Your task to perform on an android device: open app "Indeed Job Search" Image 0: 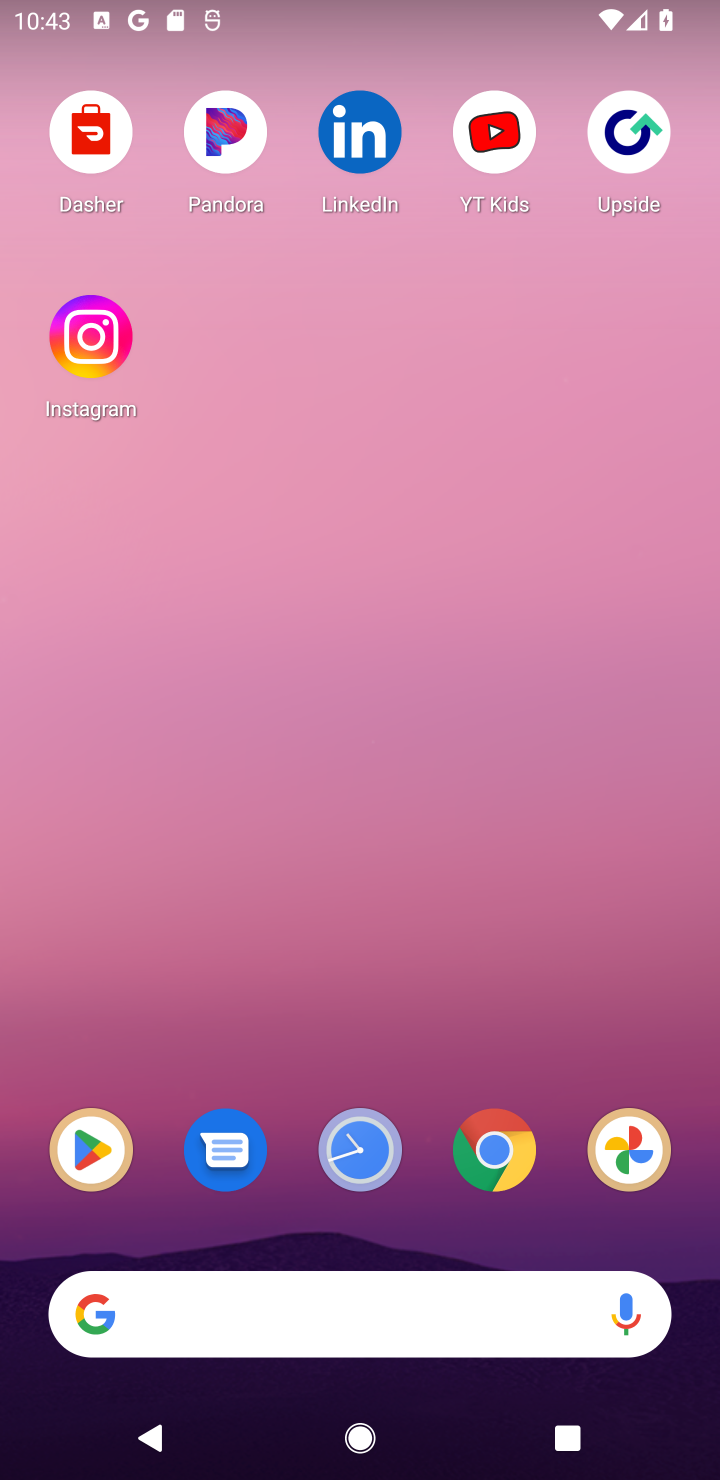
Step 0: click (92, 1175)
Your task to perform on an android device: open app "Indeed Job Search" Image 1: 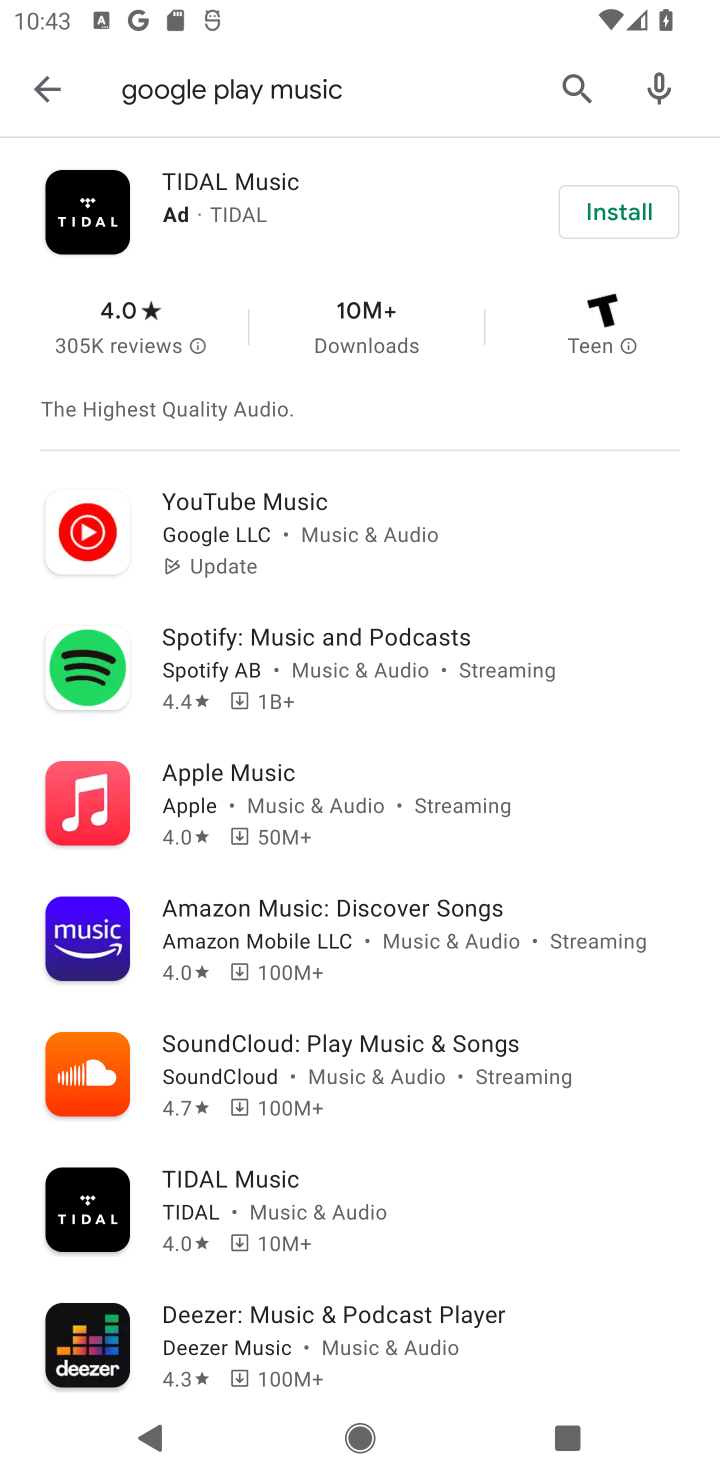
Step 1: click (574, 77)
Your task to perform on an android device: open app "Indeed Job Search" Image 2: 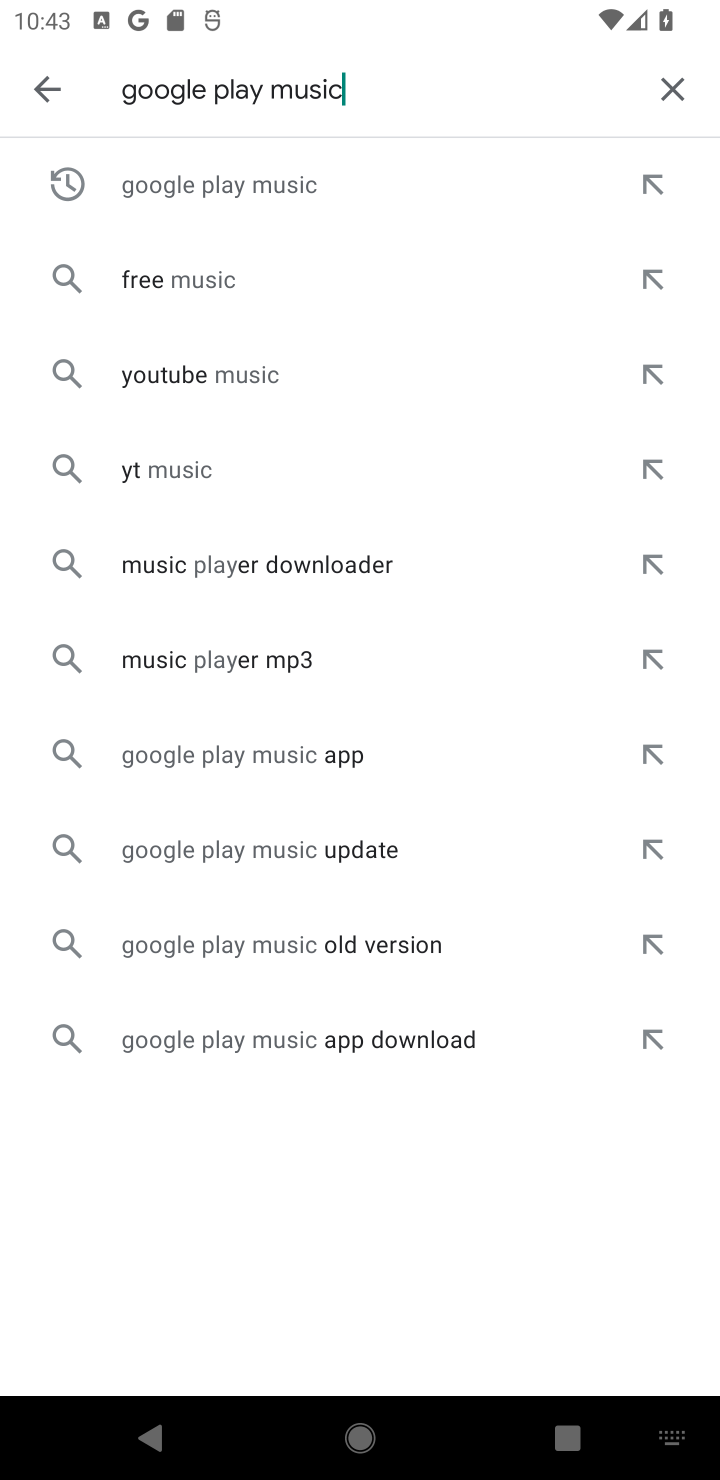
Step 2: click (667, 78)
Your task to perform on an android device: open app "Indeed Job Search" Image 3: 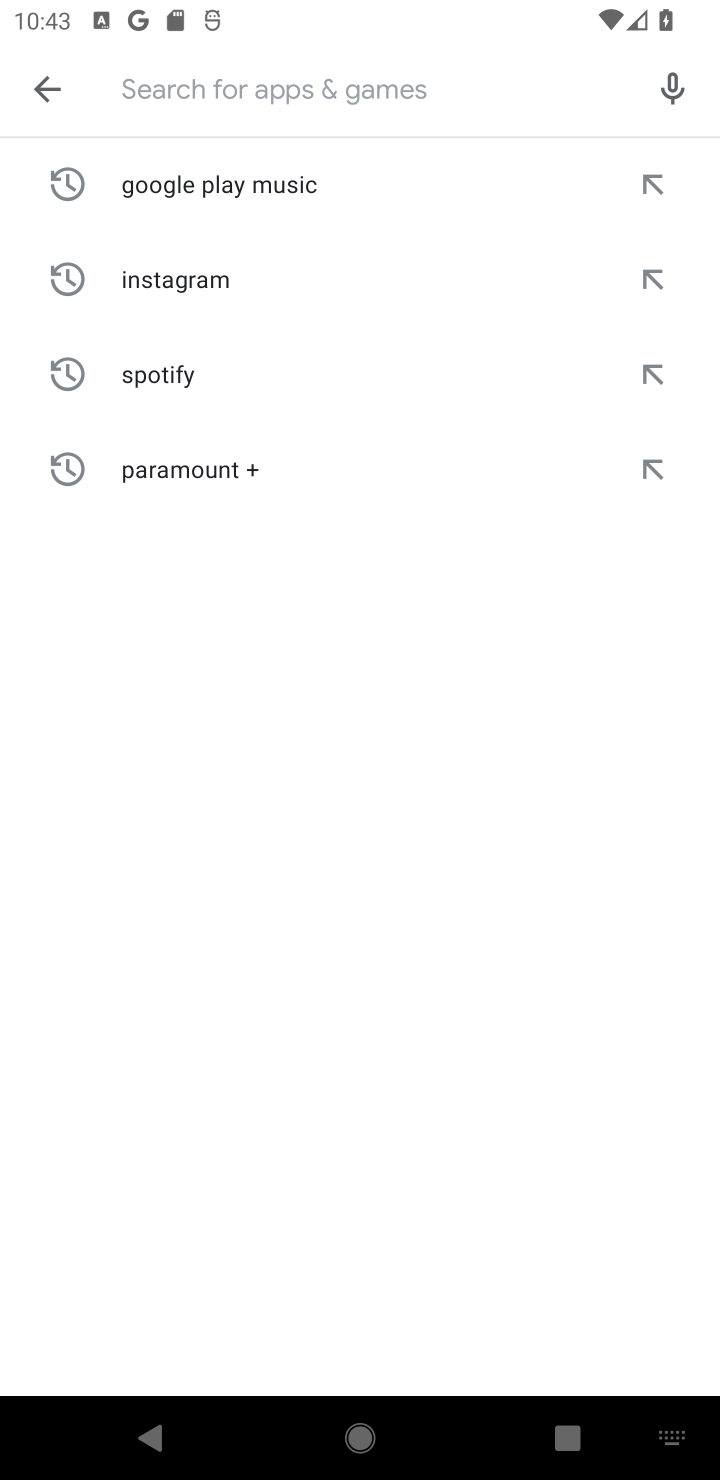
Step 3: click (143, 74)
Your task to perform on an android device: open app "Indeed Job Search" Image 4: 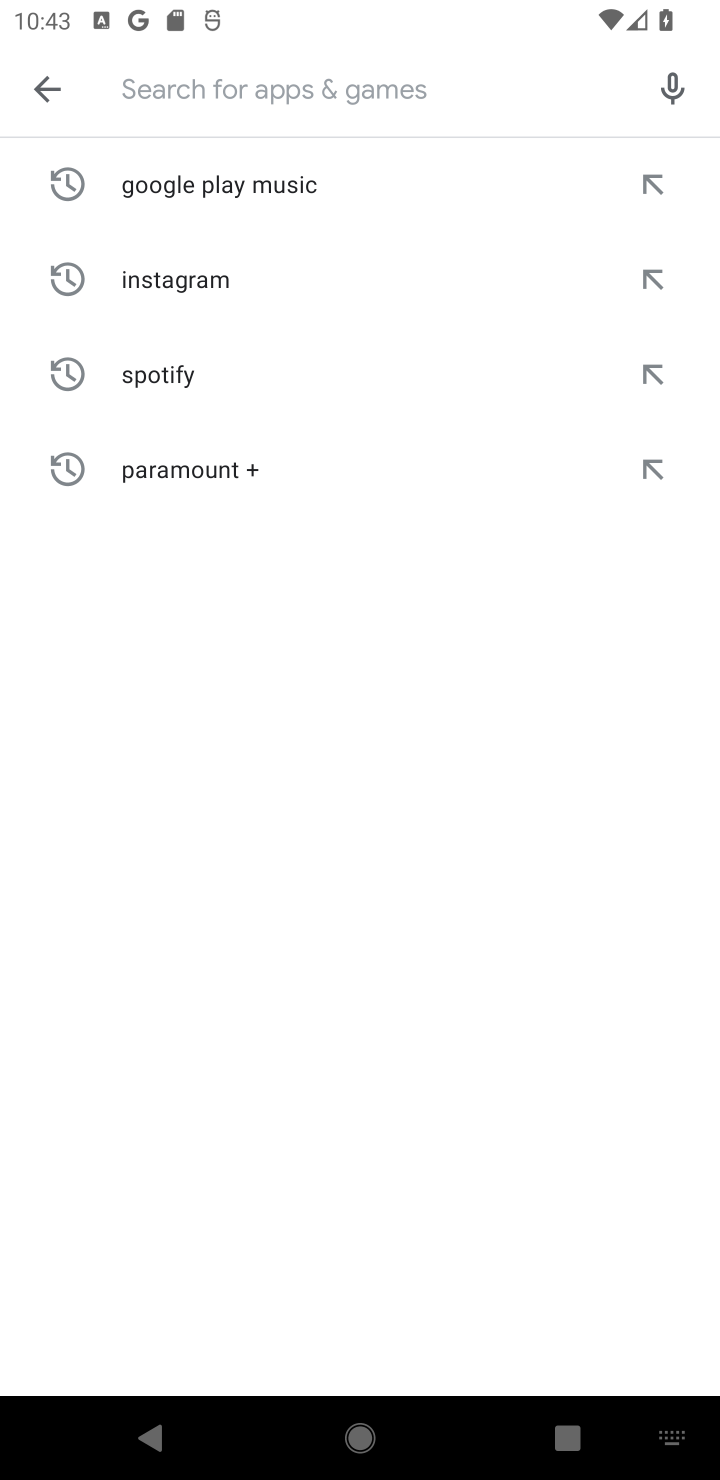
Step 4: type "indeed job search"
Your task to perform on an android device: open app "Indeed Job Search" Image 5: 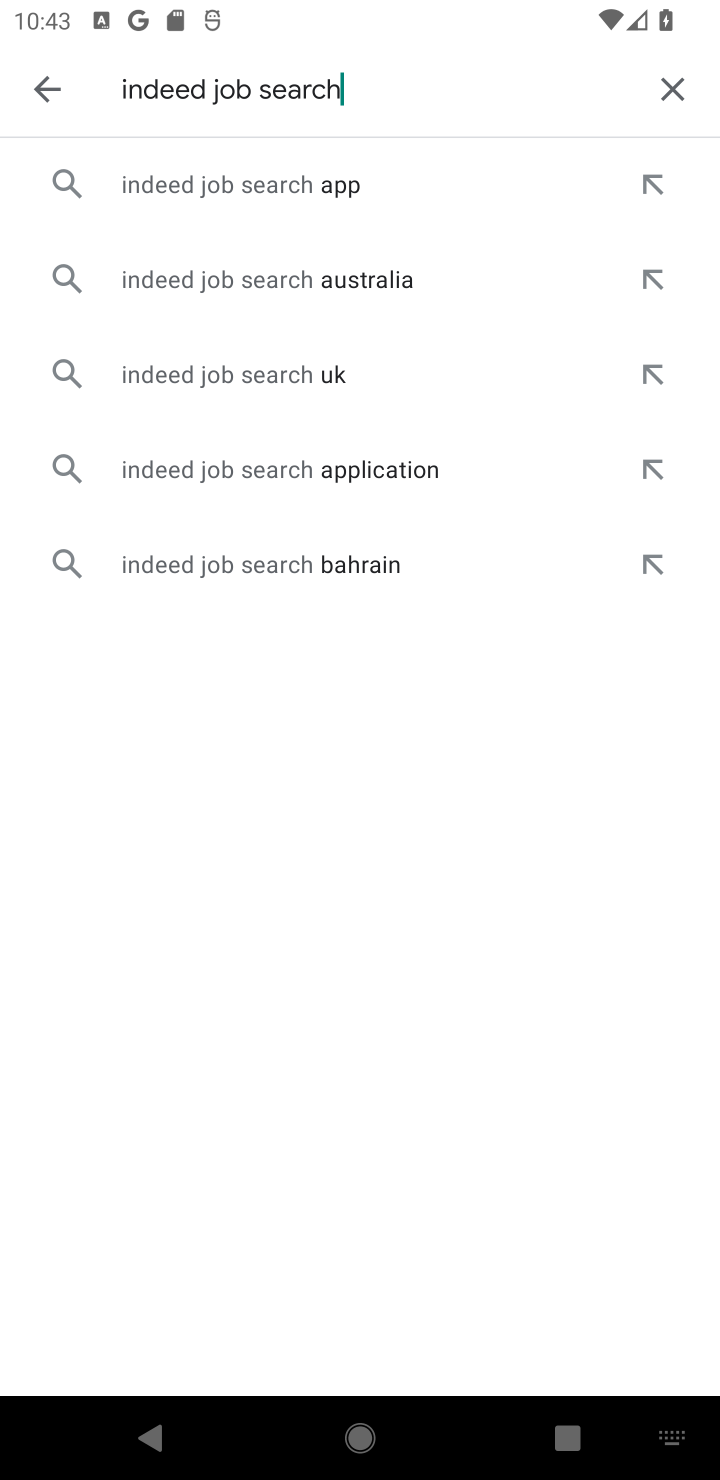
Step 5: click (310, 160)
Your task to perform on an android device: open app "Indeed Job Search" Image 6: 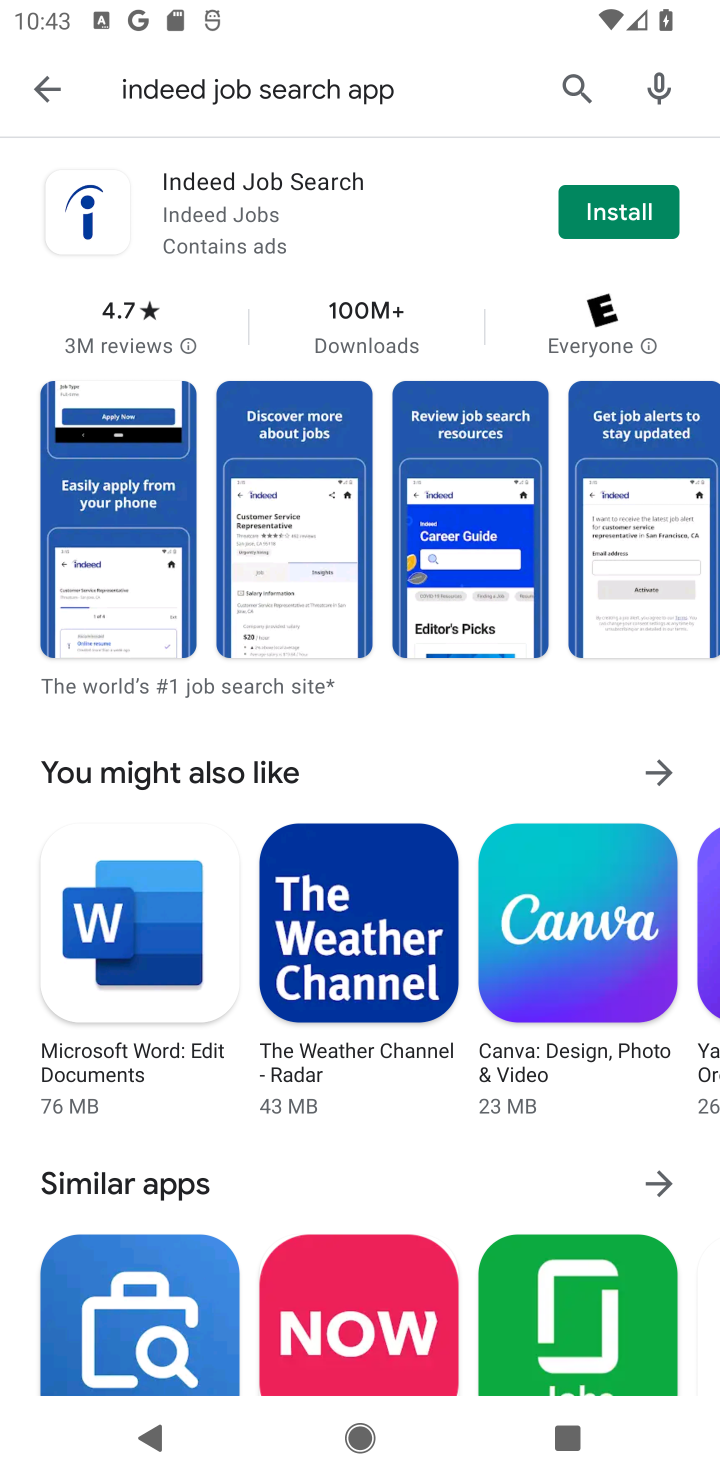
Step 6: task complete